Your task to perform on an android device: Search for pizza restaurants on Maps Image 0: 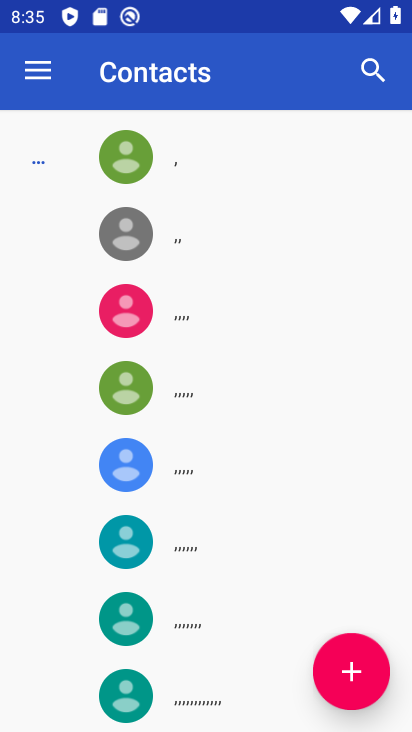
Step 0: press home button
Your task to perform on an android device: Search for pizza restaurants on Maps Image 1: 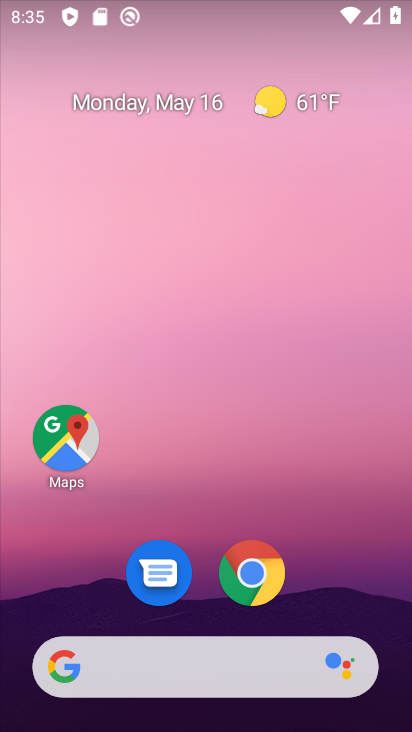
Step 1: drag from (200, 719) to (202, 151)
Your task to perform on an android device: Search for pizza restaurants on Maps Image 2: 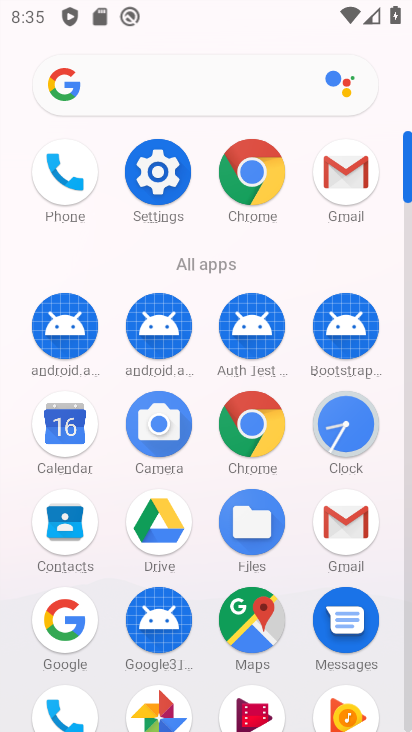
Step 2: click (253, 622)
Your task to perform on an android device: Search for pizza restaurants on Maps Image 3: 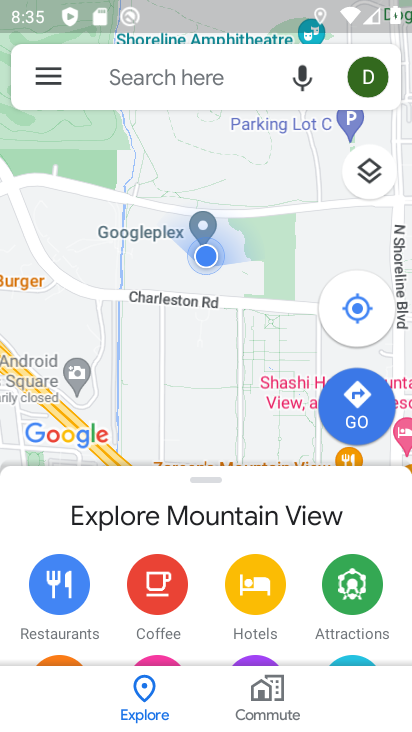
Step 3: click (168, 76)
Your task to perform on an android device: Search for pizza restaurants on Maps Image 4: 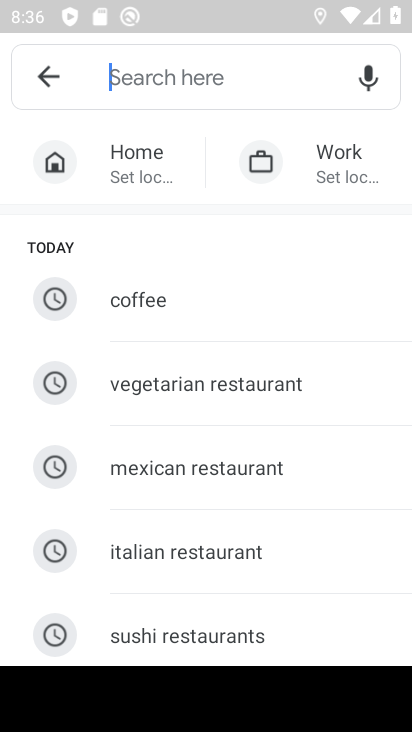
Step 4: type "pizza restaurants"
Your task to perform on an android device: Search for pizza restaurants on Maps Image 5: 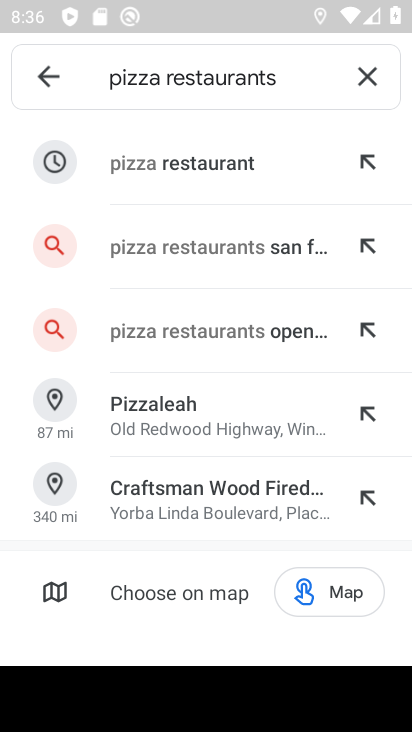
Step 5: click (172, 168)
Your task to perform on an android device: Search for pizza restaurants on Maps Image 6: 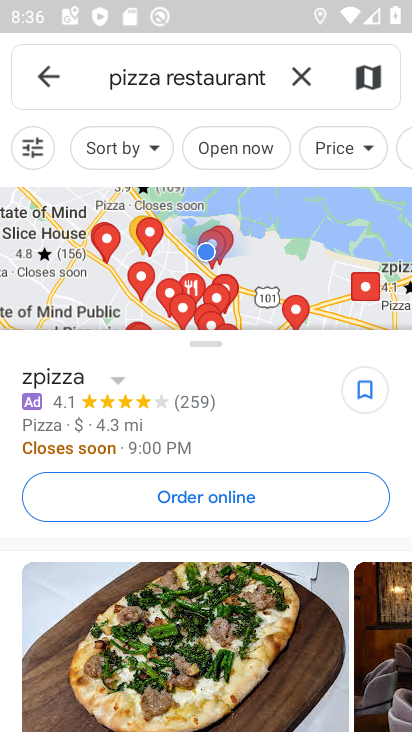
Step 6: task complete